Your task to perform on an android device: Open Maps and search for coffee Image 0: 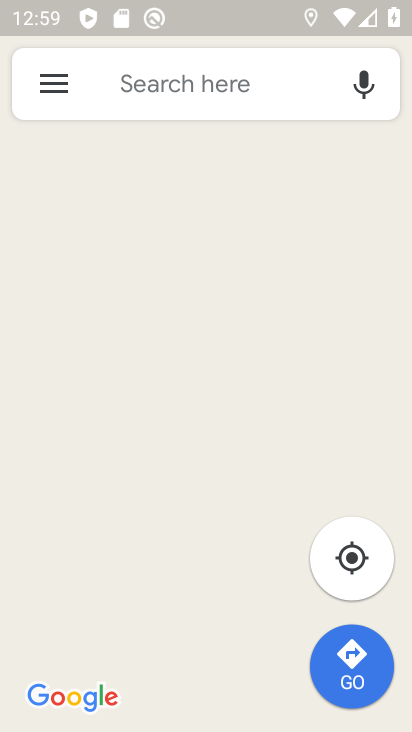
Step 0: click (211, 91)
Your task to perform on an android device: Open Maps and search for coffee Image 1: 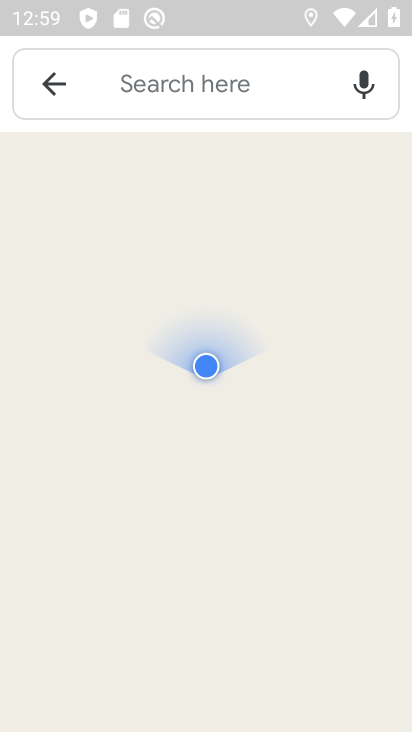
Step 1: click (239, 86)
Your task to perform on an android device: Open Maps and search for coffee Image 2: 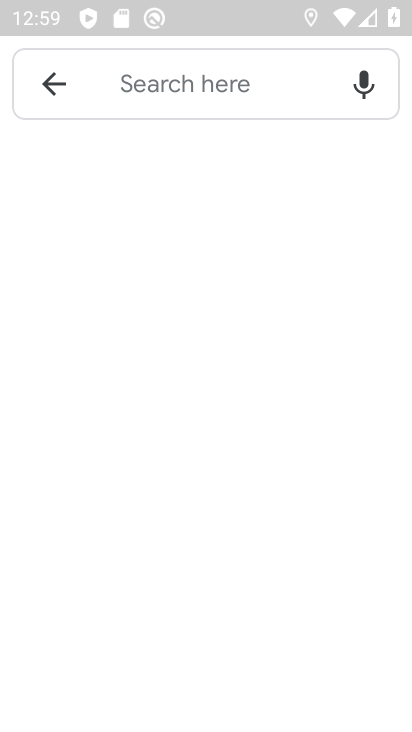
Step 2: click (206, 75)
Your task to perform on an android device: Open Maps and search for coffee Image 3: 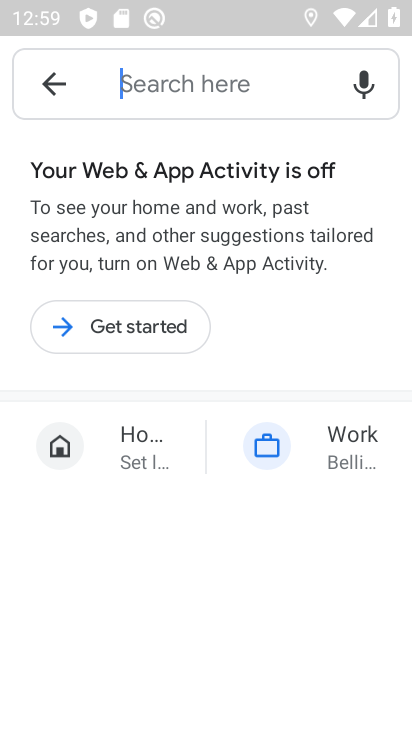
Step 3: click (207, 93)
Your task to perform on an android device: Open Maps and search for coffee Image 4: 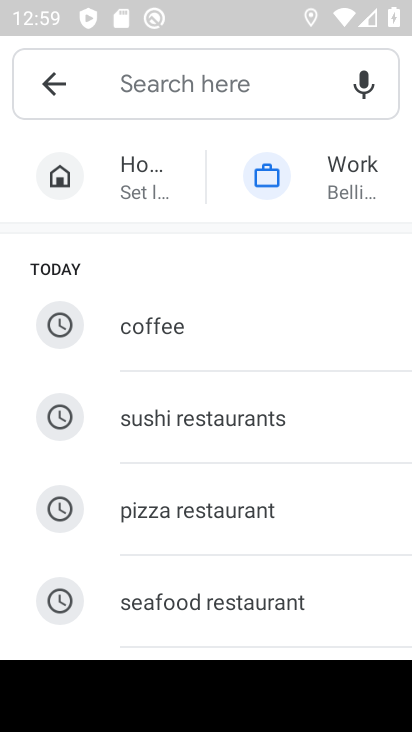
Step 4: type "coffee"
Your task to perform on an android device: Open Maps and search for coffee Image 5: 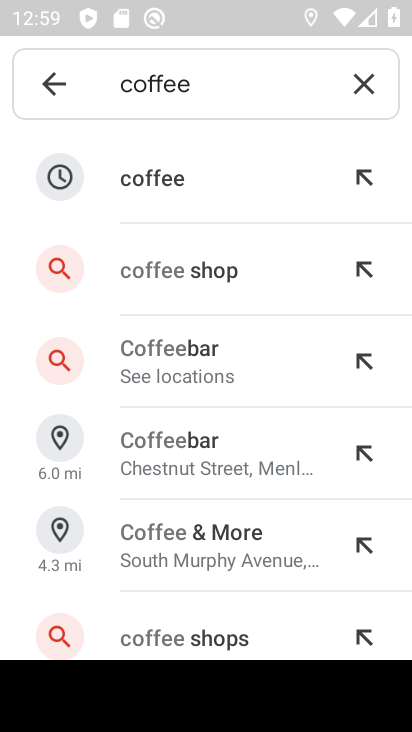
Step 5: click (207, 176)
Your task to perform on an android device: Open Maps and search for coffee Image 6: 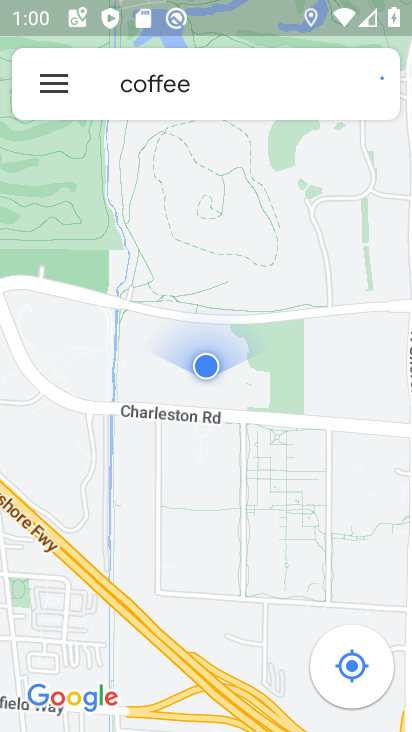
Step 6: task complete